Your task to perform on an android device: Open Chrome and go to the settings page Image 0: 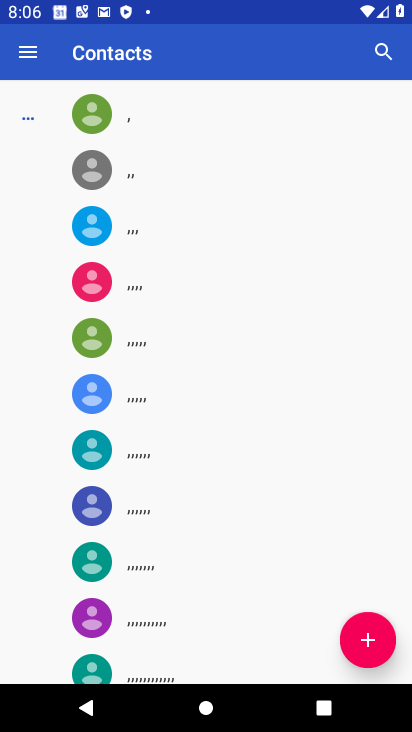
Step 0: press home button
Your task to perform on an android device: Open Chrome and go to the settings page Image 1: 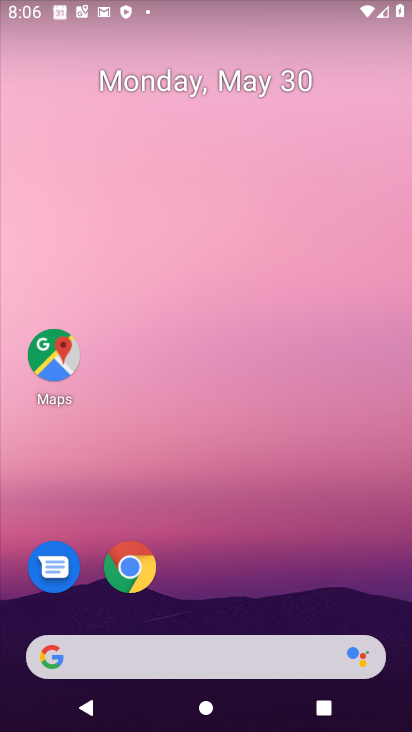
Step 1: drag from (267, 586) to (265, 26)
Your task to perform on an android device: Open Chrome and go to the settings page Image 2: 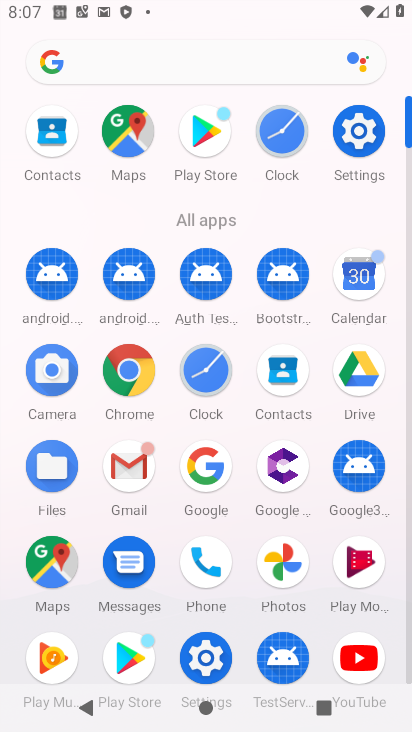
Step 2: click (123, 378)
Your task to perform on an android device: Open Chrome and go to the settings page Image 3: 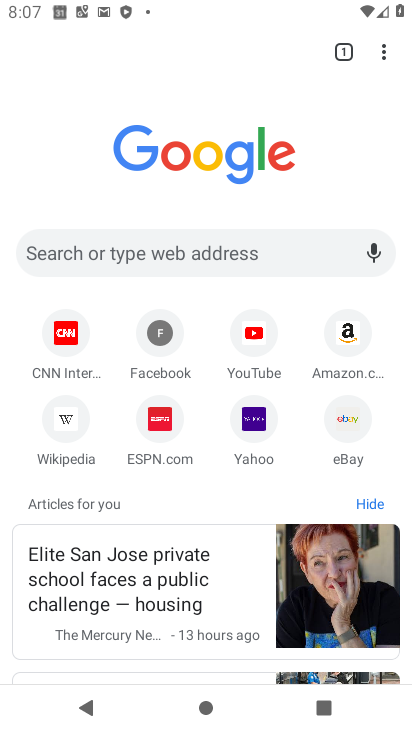
Step 3: click (384, 56)
Your task to perform on an android device: Open Chrome and go to the settings page Image 4: 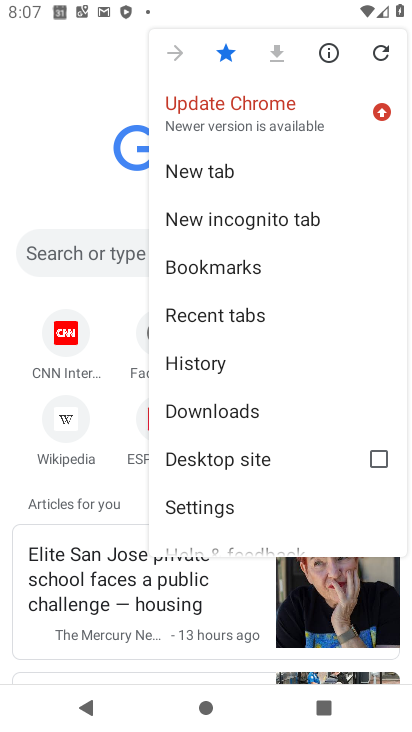
Step 4: click (253, 494)
Your task to perform on an android device: Open Chrome and go to the settings page Image 5: 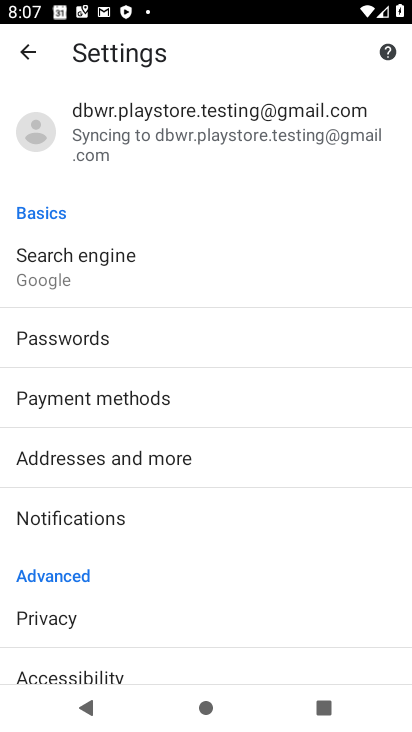
Step 5: task complete